Your task to perform on an android device: Go to display settings Image 0: 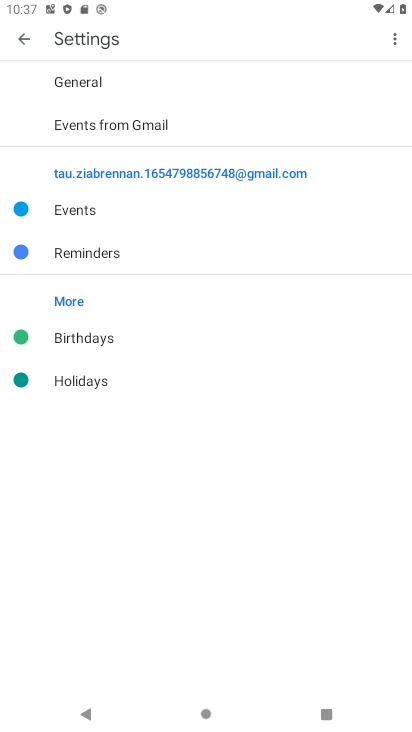
Step 0: press home button
Your task to perform on an android device: Go to display settings Image 1: 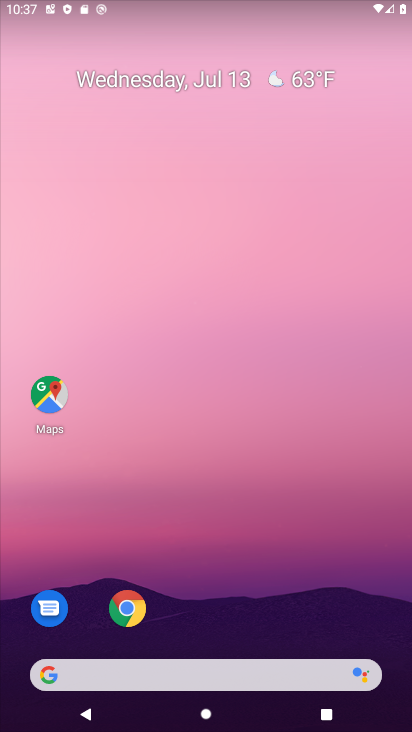
Step 1: drag from (267, 511) to (316, 157)
Your task to perform on an android device: Go to display settings Image 2: 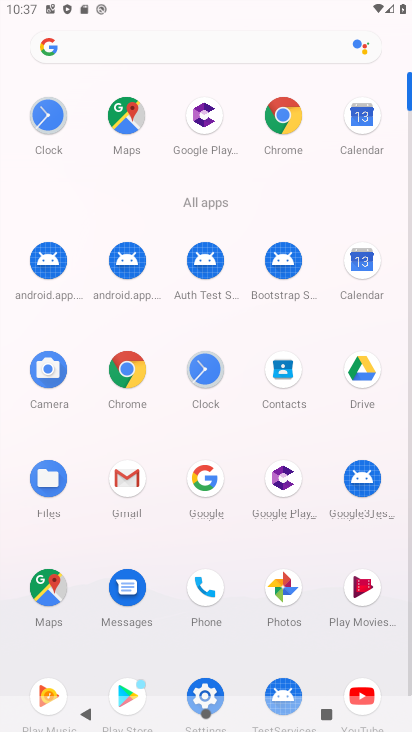
Step 2: click (203, 689)
Your task to perform on an android device: Go to display settings Image 3: 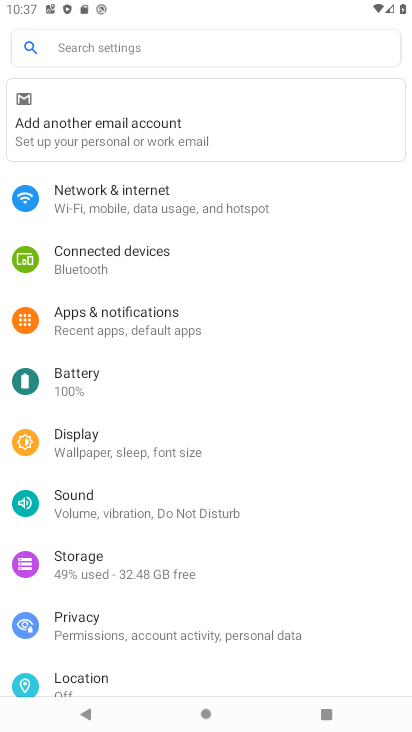
Step 3: click (119, 448)
Your task to perform on an android device: Go to display settings Image 4: 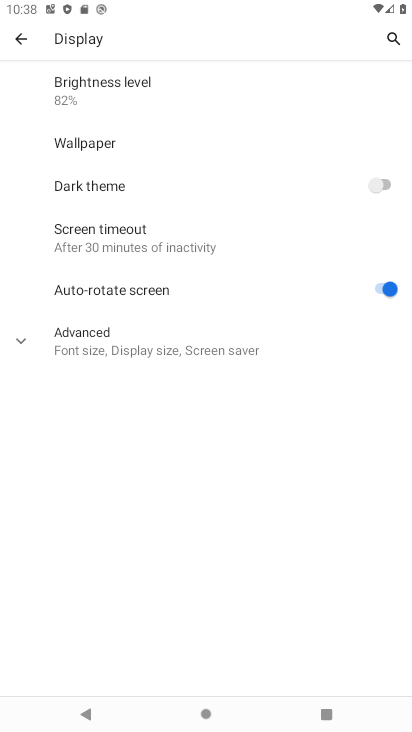
Step 4: task complete